Your task to perform on an android device: What's the weather going to be tomorrow? Image 0: 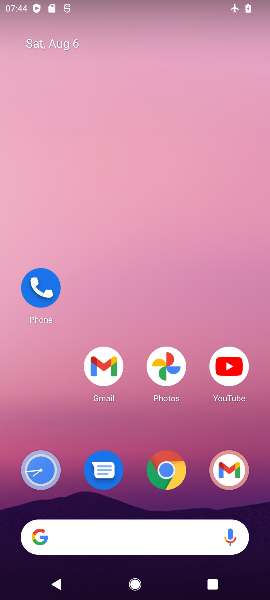
Step 0: drag from (11, 412) to (57, 30)
Your task to perform on an android device: What's the weather going to be tomorrow? Image 1: 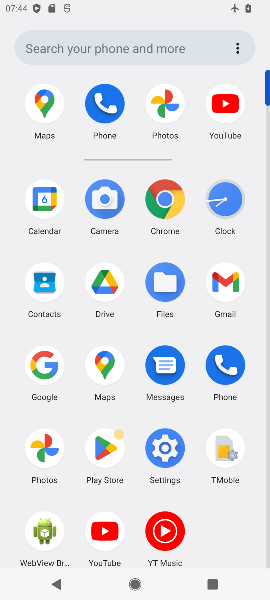
Step 1: click (158, 211)
Your task to perform on an android device: What's the weather going to be tomorrow? Image 2: 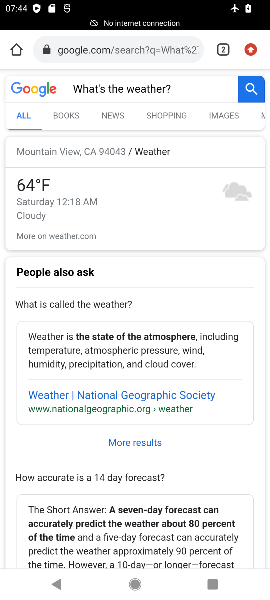
Step 2: click (90, 42)
Your task to perform on an android device: What's the weather going to be tomorrow? Image 3: 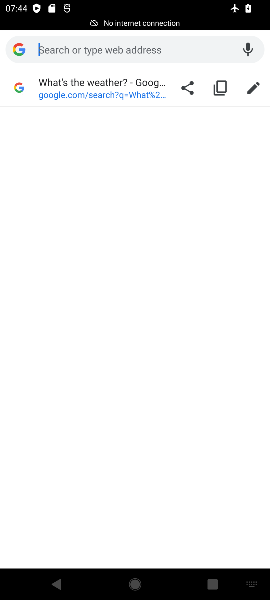
Step 3: drag from (114, 0) to (79, 510)
Your task to perform on an android device: What's the weather going to be tomorrow? Image 4: 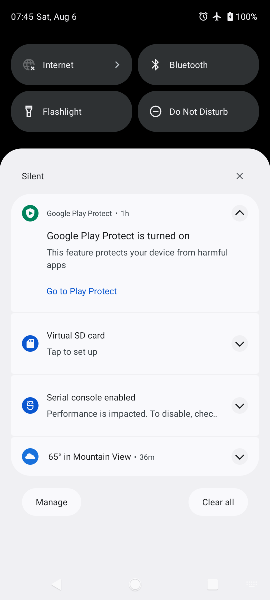
Step 4: drag from (133, 135) to (135, 522)
Your task to perform on an android device: What's the weather going to be tomorrow? Image 5: 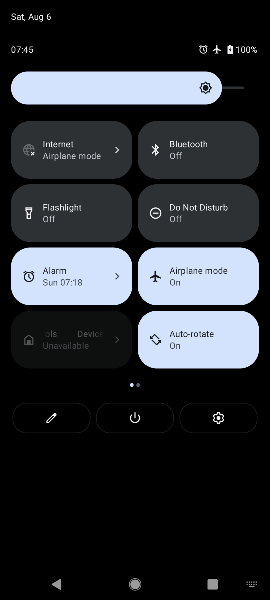
Step 5: click (196, 276)
Your task to perform on an android device: What's the weather going to be tomorrow? Image 6: 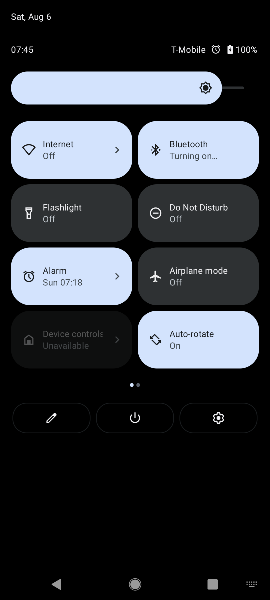
Step 6: drag from (132, 547) to (146, 5)
Your task to perform on an android device: What's the weather going to be tomorrow? Image 7: 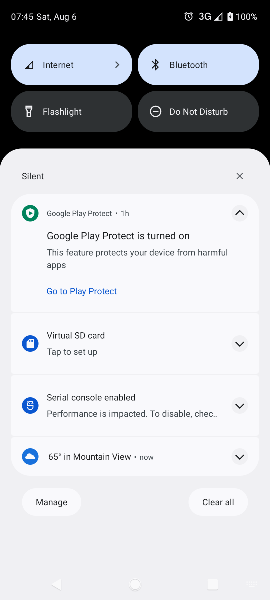
Step 7: drag from (181, 523) to (133, 23)
Your task to perform on an android device: What's the weather going to be tomorrow? Image 8: 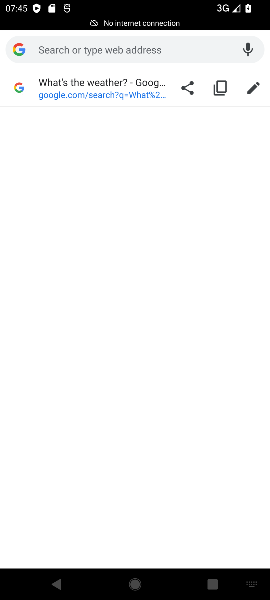
Step 8: click (91, 24)
Your task to perform on an android device: What's the weather going to be tomorrow? Image 9: 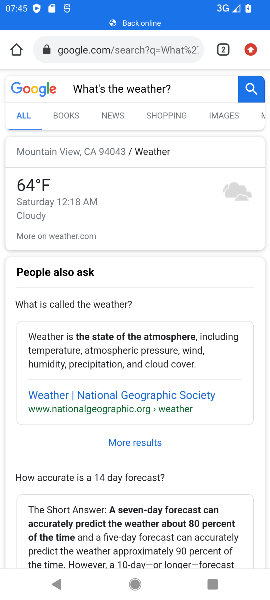
Step 9: click (112, 47)
Your task to perform on an android device: What's the weather going to be tomorrow? Image 10: 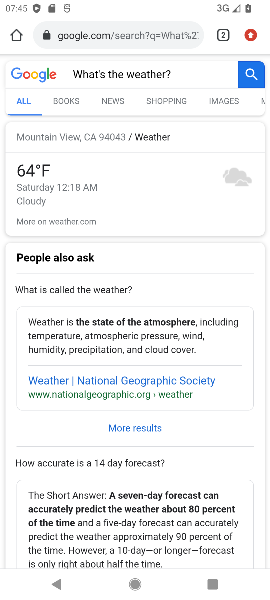
Step 10: type "What's the weather going to be tomorrow?"
Your task to perform on an android device: What's the weather going to be tomorrow? Image 11: 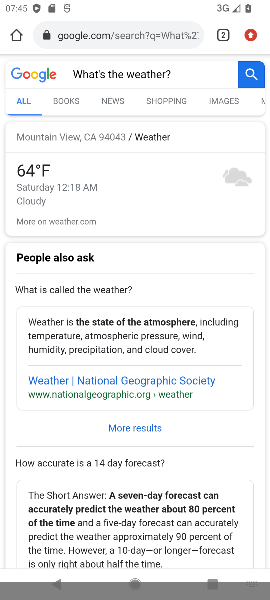
Step 11: type ""
Your task to perform on an android device: What's the weather going to be tomorrow? Image 12: 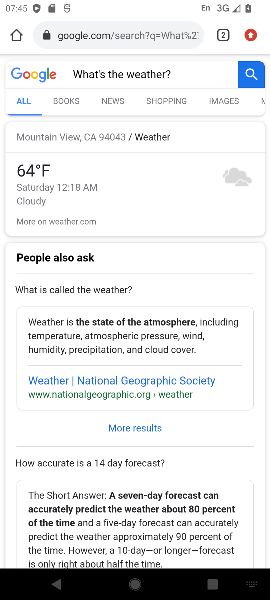
Step 12: click (167, 301)
Your task to perform on an android device: What's the weather going to be tomorrow? Image 13: 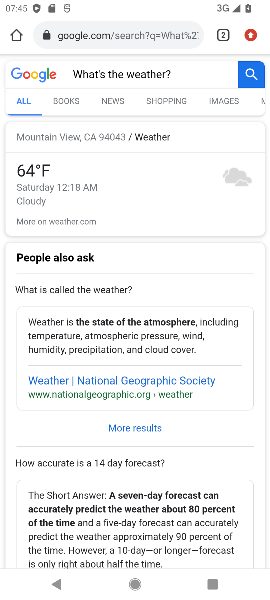
Step 13: click (67, 35)
Your task to perform on an android device: What's the weather going to be tomorrow? Image 14: 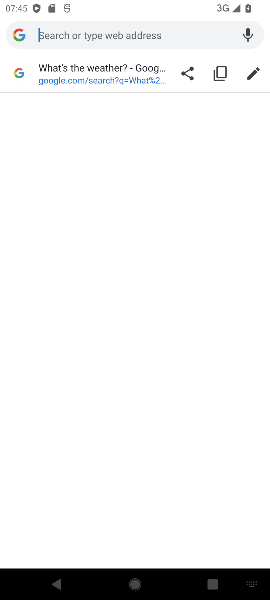
Step 14: type "What's the weather going to be tomorrow?"
Your task to perform on an android device: What's the weather going to be tomorrow? Image 15: 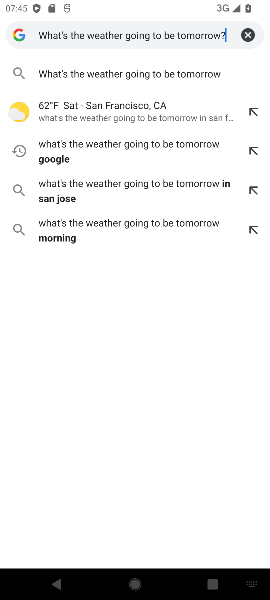
Step 15: type ""
Your task to perform on an android device: What's the weather going to be tomorrow? Image 16: 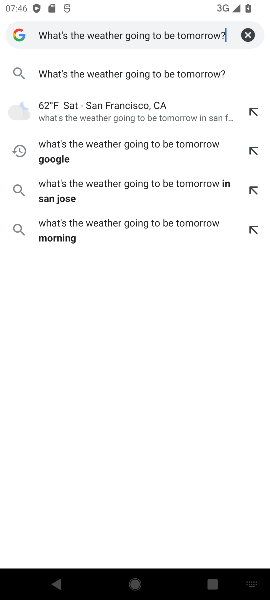
Step 16: click (84, 77)
Your task to perform on an android device: What's the weather going to be tomorrow? Image 17: 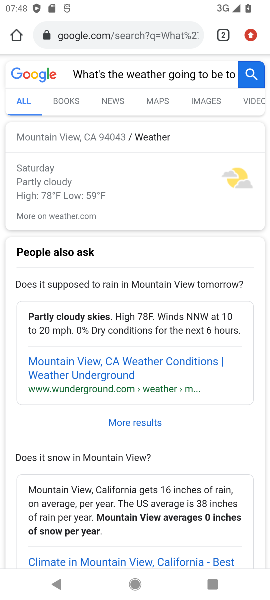
Step 17: task complete